Your task to perform on an android device: Show me popular videos on Youtube Image 0: 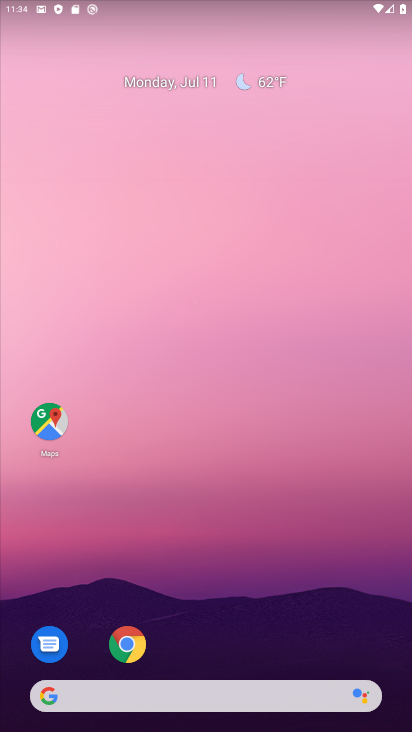
Step 0: drag from (222, 660) to (218, 103)
Your task to perform on an android device: Show me popular videos on Youtube Image 1: 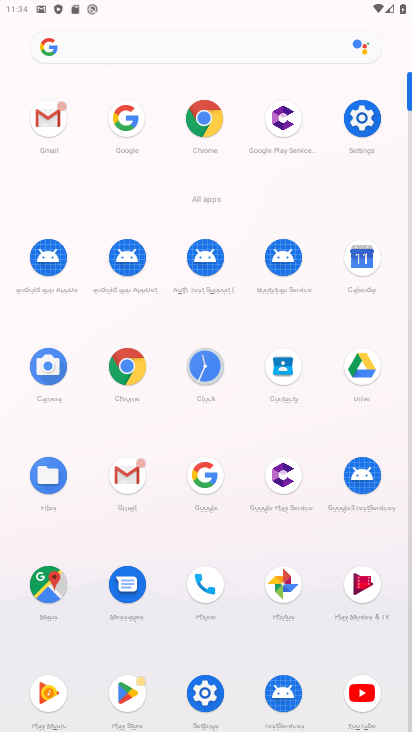
Step 1: click (359, 702)
Your task to perform on an android device: Show me popular videos on Youtube Image 2: 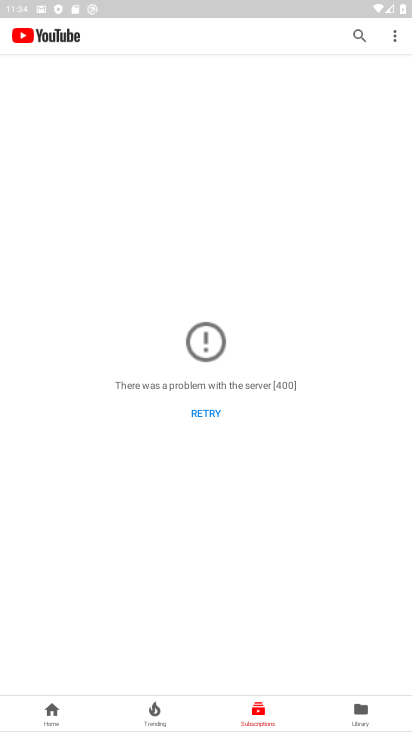
Step 2: click (348, 709)
Your task to perform on an android device: Show me popular videos on Youtube Image 3: 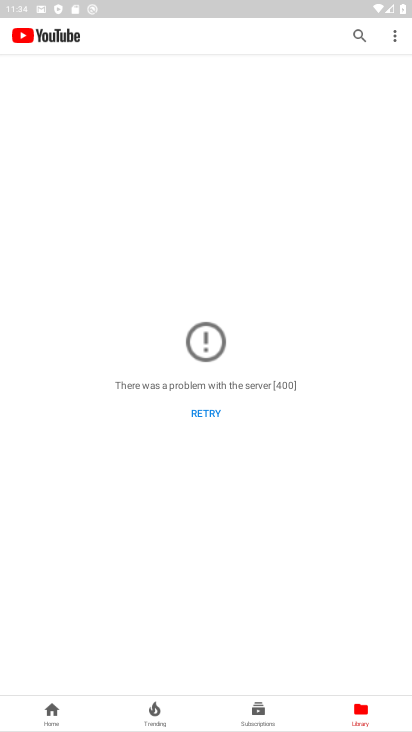
Step 3: click (223, 403)
Your task to perform on an android device: Show me popular videos on Youtube Image 4: 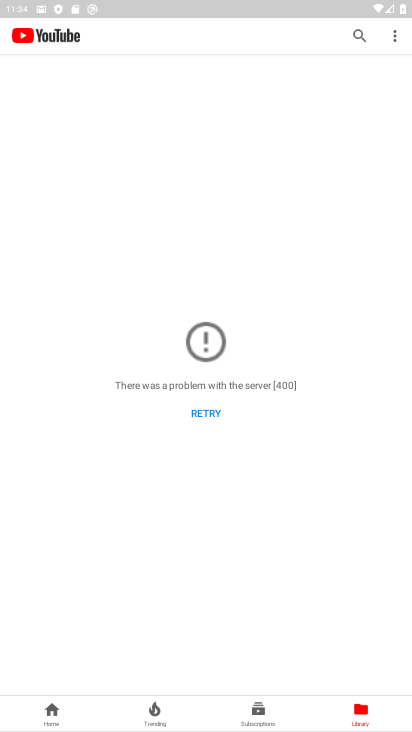
Step 4: task complete